Your task to perform on an android device: toggle improve location accuracy Image 0: 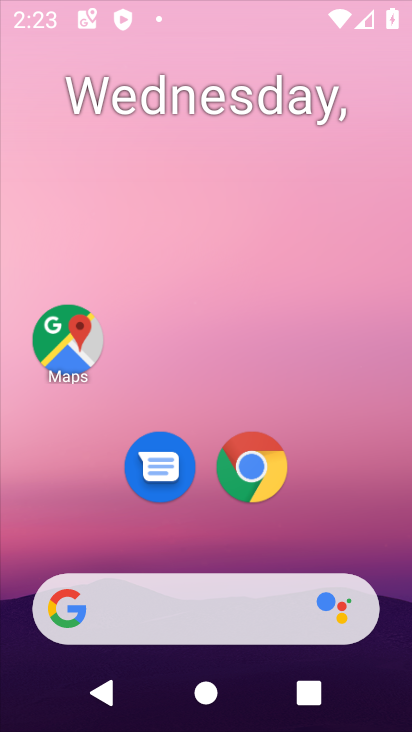
Step 0: drag from (246, 715) to (162, 148)
Your task to perform on an android device: toggle improve location accuracy Image 1: 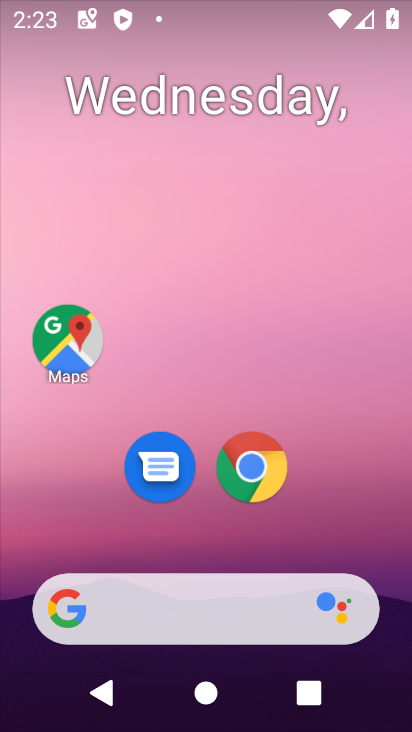
Step 1: drag from (285, 537) to (115, 136)
Your task to perform on an android device: toggle improve location accuracy Image 2: 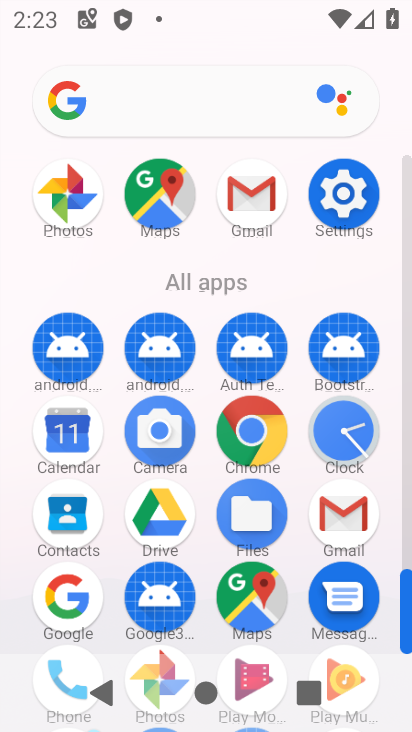
Step 2: click (335, 211)
Your task to perform on an android device: toggle improve location accuracy Image 3: 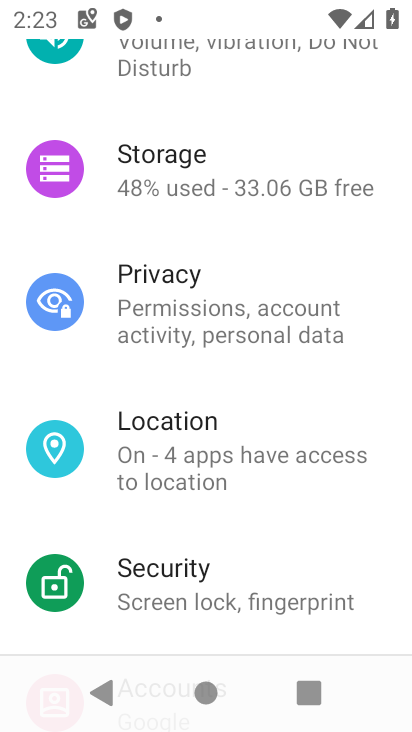
Step 3: click (179, 444)
Your task to perform on an android device: toggle improve location accuracy Image 4: 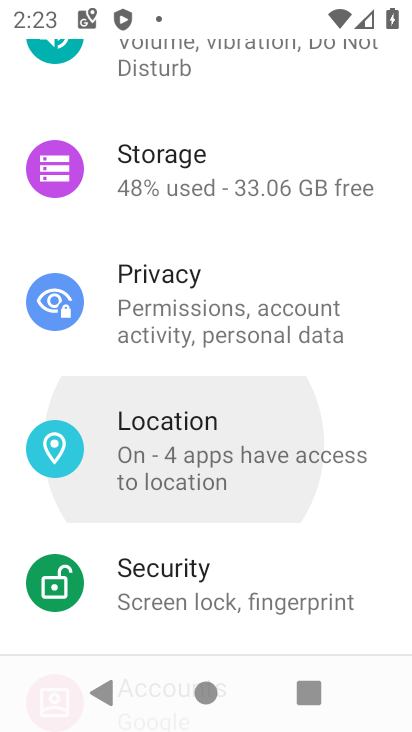
Step 4: click (179, 446)
Your task to perform on an android device: toggle improve location accuracy Image 5: 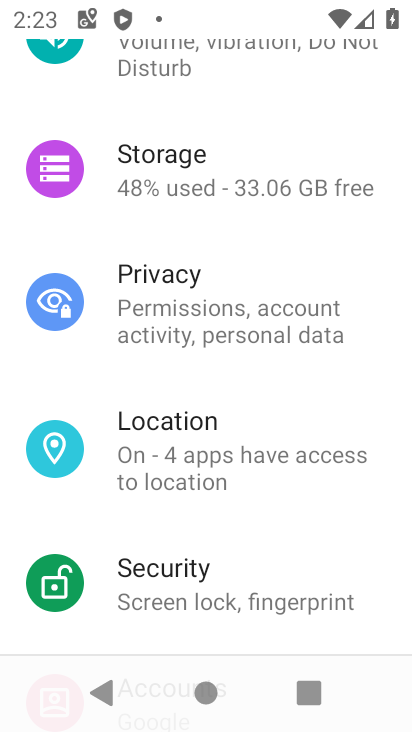
Step 5: click (179, 450)
Your task to perform on an android device: toggle improve location accuracy Image 6: 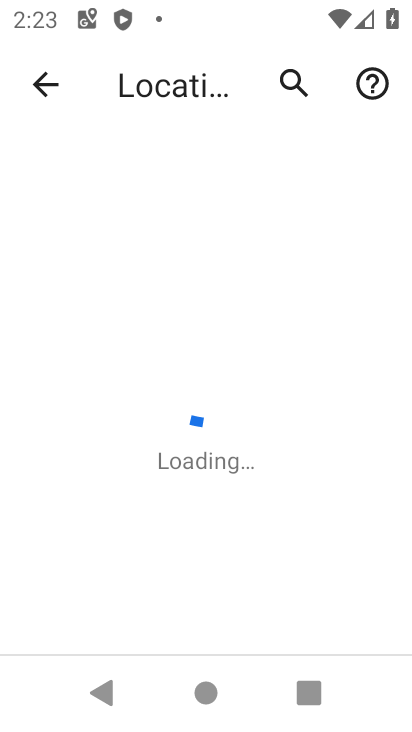
Step 6: drag from (227, 411) to (212, 245)
Your task to perform on an android device: toggle improve location accuracy Image 7: 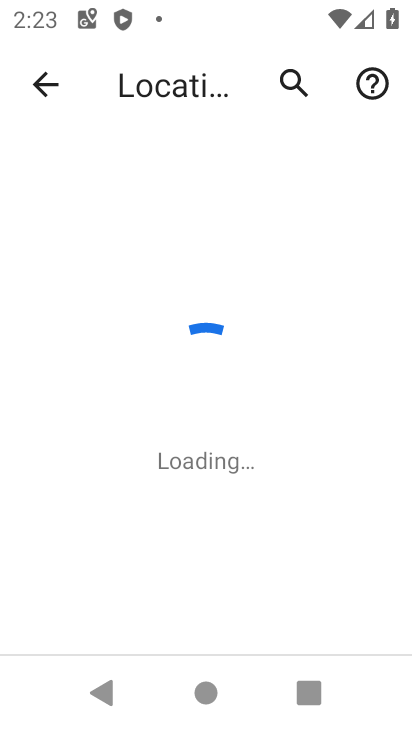
Step 7: click (45, 91)
Your task to perform on an android device: toggle improve location accuracy Image 8: 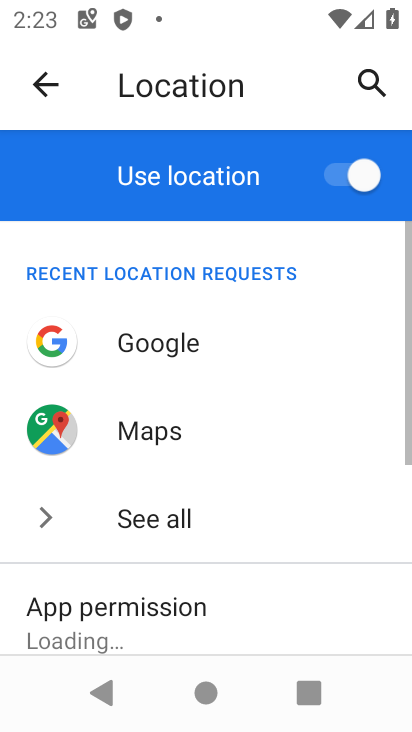
Step 8: drag from (205, 476) to (191, 199)
Your task to perform on an android device: toggle improve location accuracy Image 9: 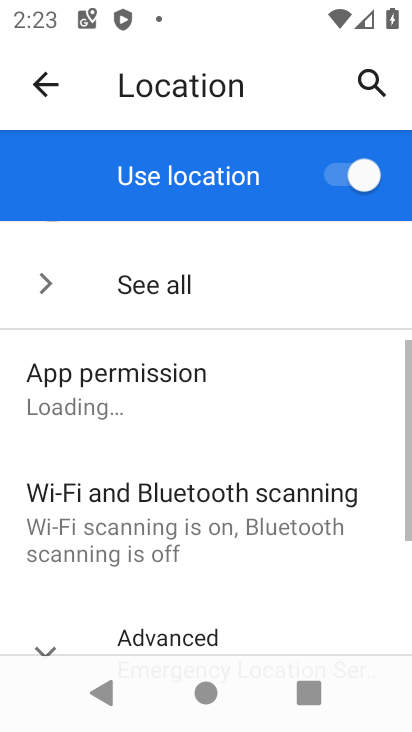
Step 9: drag from (252, 441) to (248, 187)
Your task to perform on an android device: toggle improve location accuracy Image 10: 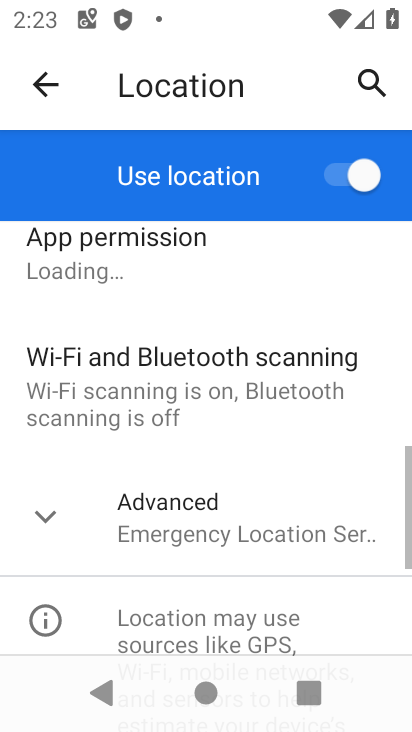
Step 10: drag from (240, 448) to (215, 200)
Your task to perform on an android device: toggle improve location accuracy Image 11: 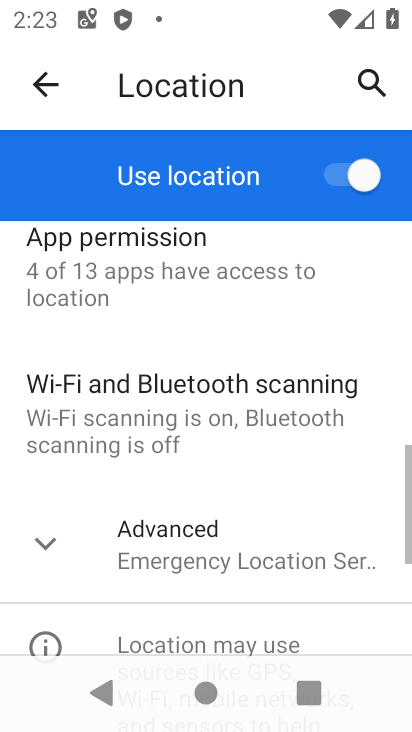
Step 11: click (194, 245)
Your task to perform on an android device: toggle improve location accuracy Image 12: 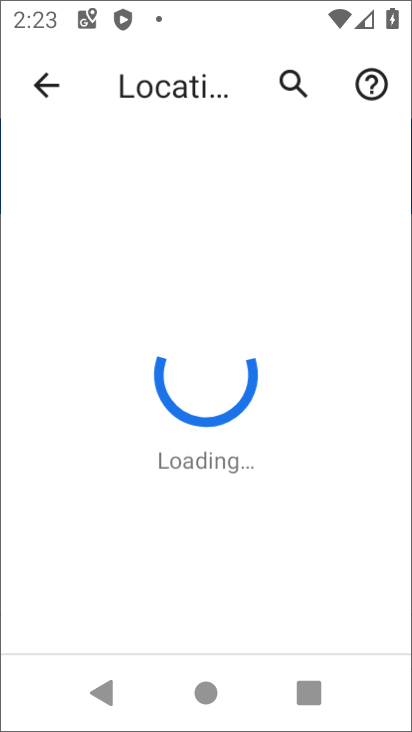
Step 12: click (182, 552)
Your task to perform on an android device: toggle improve location accuracy Image 13: 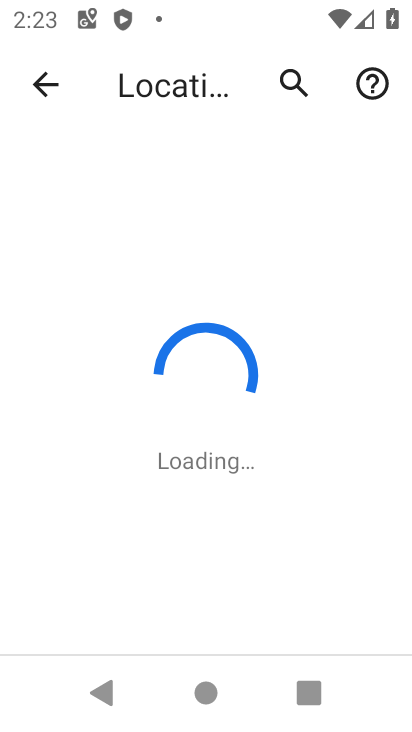
Step 13: click (182, 551)
Your task to perform on an android device: toggle improve location accuracy Image 14: 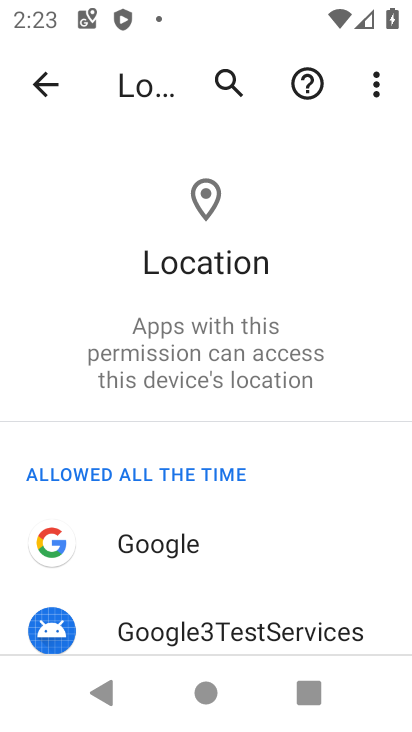
Step 14: drag from (191, 519) to (191, 269)
Your task to perform on an android device: toggle improve location accuracy Image 15: 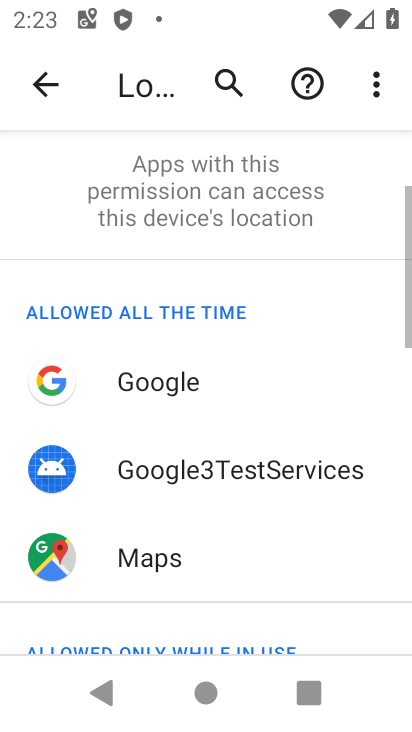
Step 15: drag from (235, 448) to (195, 190)
Your task to perform on an android device: toggle improve location accuracy Image 16: 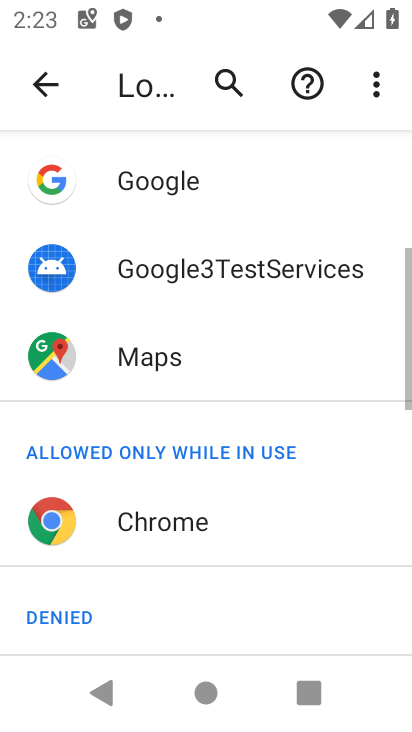
Step 16: drag from (224, 493) to (211, 285)
Your task to perform on an android device: toggle improve location accuracy Image 17: 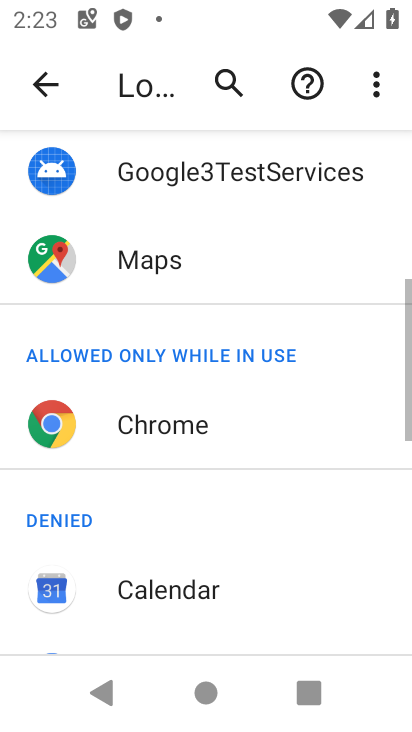
Step 17: click (155, 192)
Your task to perform on an android device: toggle improve location accuracy Image 18: 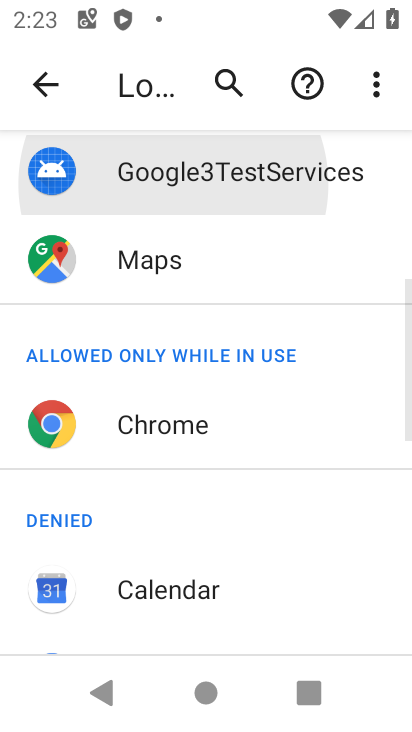
Step 18: drag from (188, 476) to (188, 274)
Your task to perform on an android device: toggle improve location accuracy Image 19: 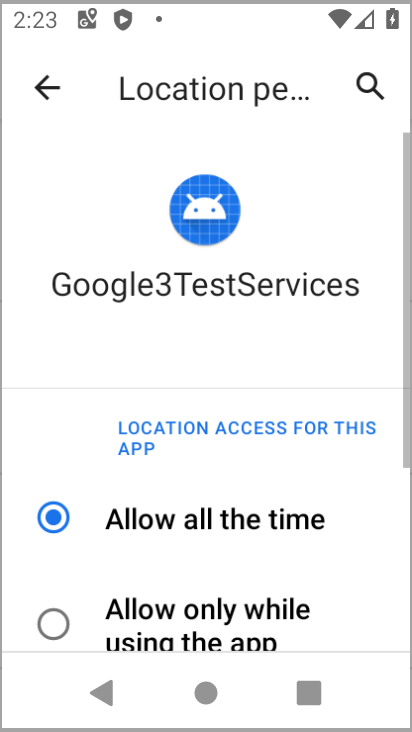
Step 19: drag from (197, 420) to (187, 277)
Your task to perform on an android device: toggle improve location accuracy Image 20: 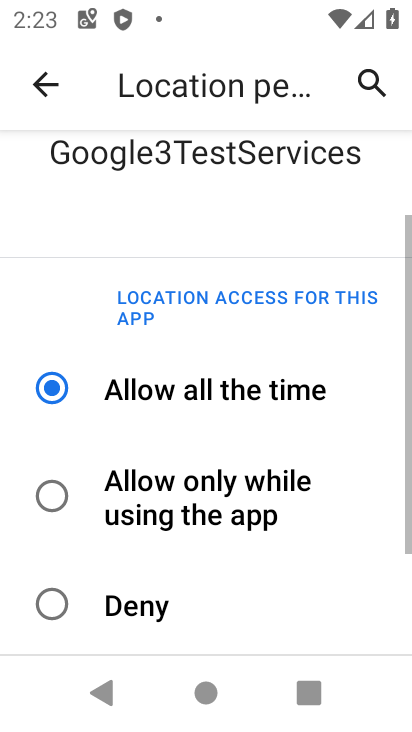
Step 20: drag from (148, 353) to (124, 228)
Your task to perform on an android device: toggle improve location accuracy Image 21: 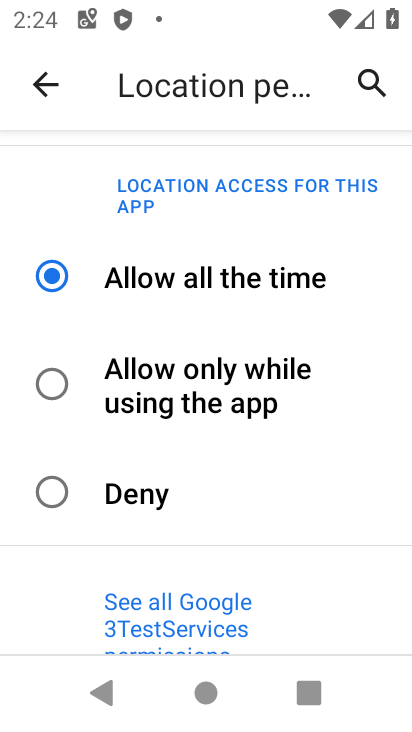
Step 21: click (33, 85)
Your task to perform on an android device: toggle improve location accuracy Image 22: 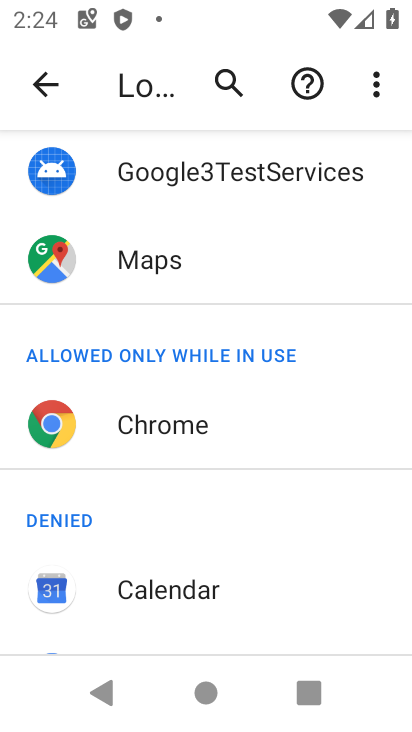
Step 22: click (39, 85)
Your task to perform on an android device: toggle improve location accuracy Image 23: 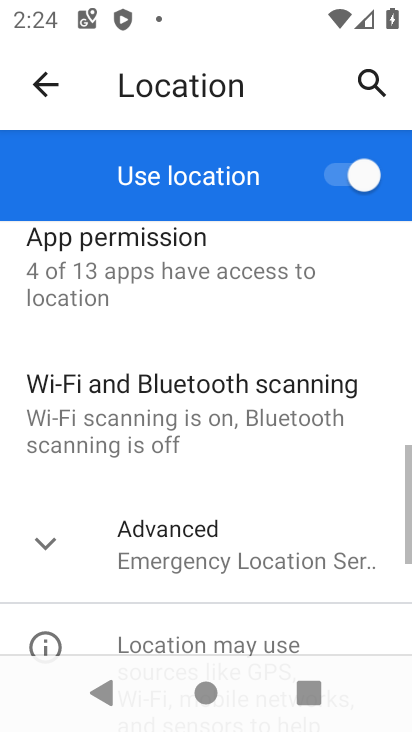
Step 23: click (182, 268)
Your task to perform on an android device: toggle improve location accuracy Image 24: 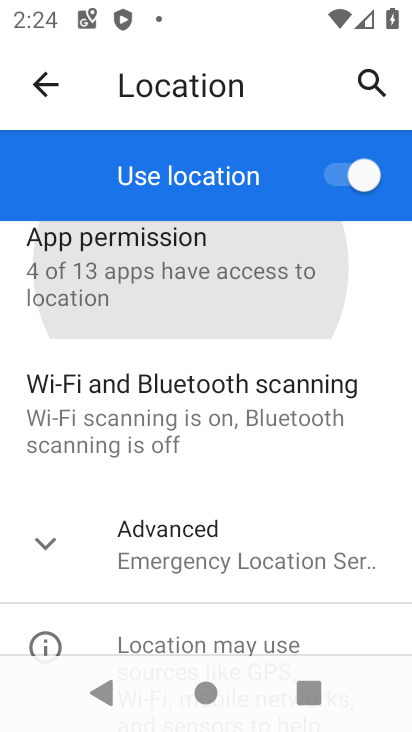
Step 24: drag from (260, 406) to (253, 227)
Your task to perform on an android device: toggle improve location accuracy Image 25: 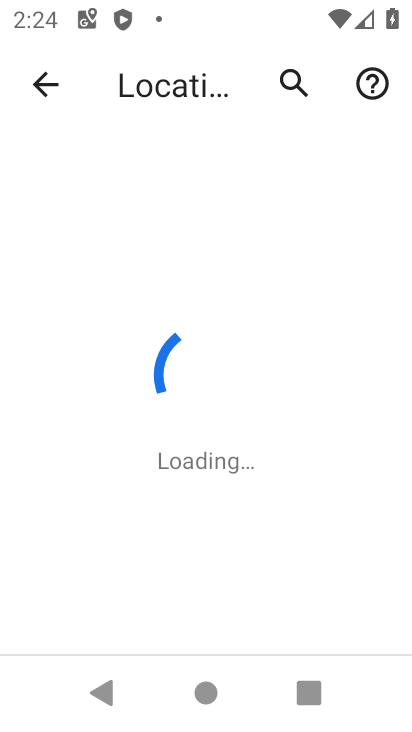
Step 25: click (35, 84)
Your task to perform on an android device: toggle improve location accuracy Image 26: 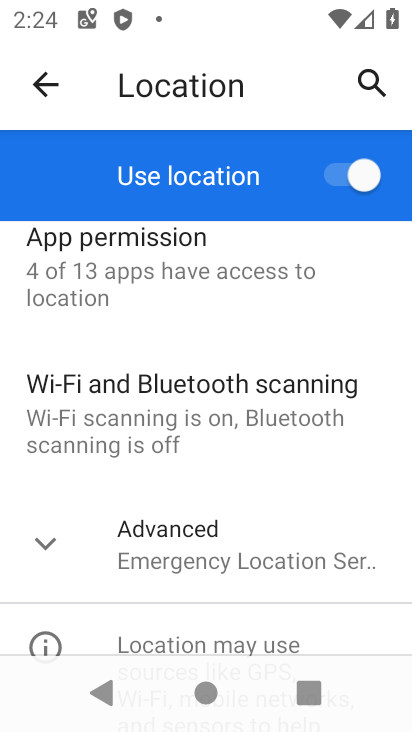
Step 26: click (152, 545)
Your task to perform on an android device: toggle improve location accuracy Image 27: 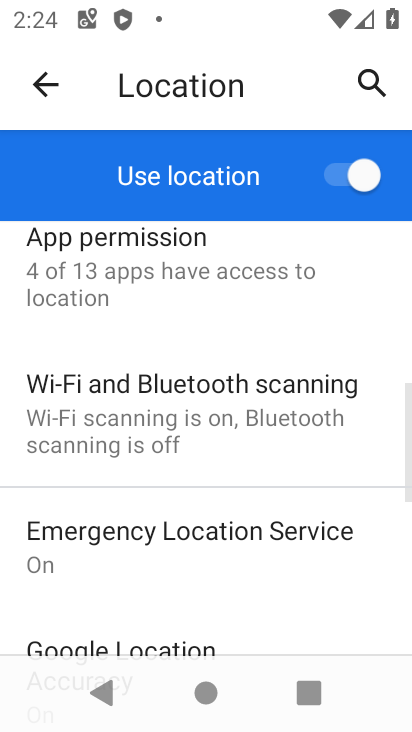
Step 27: drag from (169, 558) to (132, 248)
Your task to perform on an android device: toggle improve location accuracy Image 28: 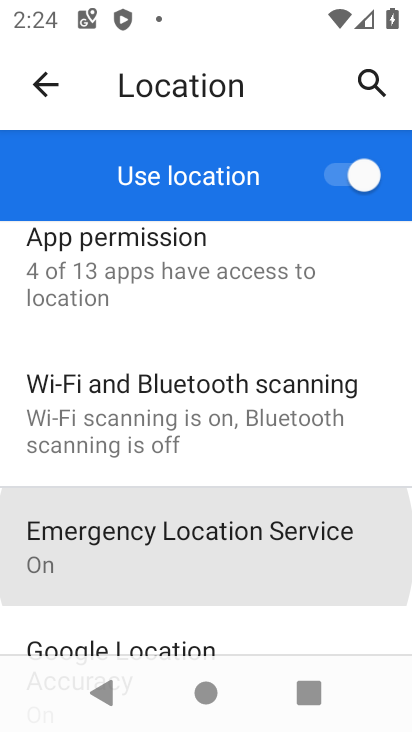
Step 28: drag from (200, 507) to (152, 254)
Your task to perform on an android device: toggle improve location accuracy Image 29: 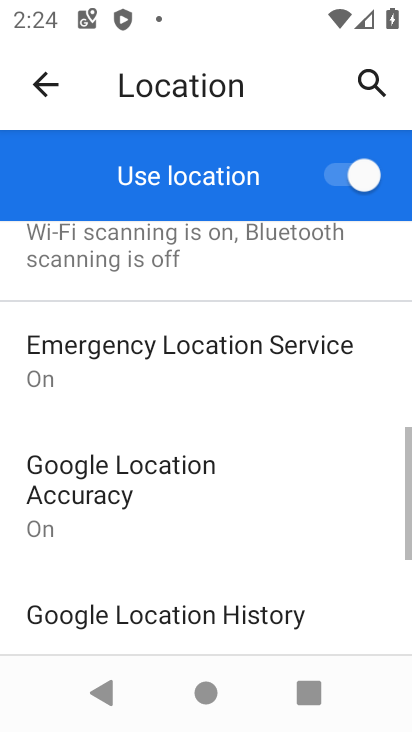
Step 29: drag from (165, 442) to (149, 228)
Your task to perform on an android device: toggle improve location accuracy Image 30: 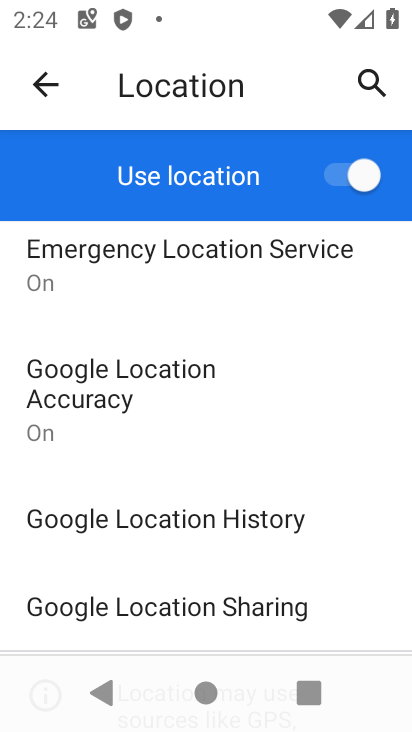
Step 30: click (78, 369)
Your task to perform on an android device: toggle improve location accuracy Image 31: 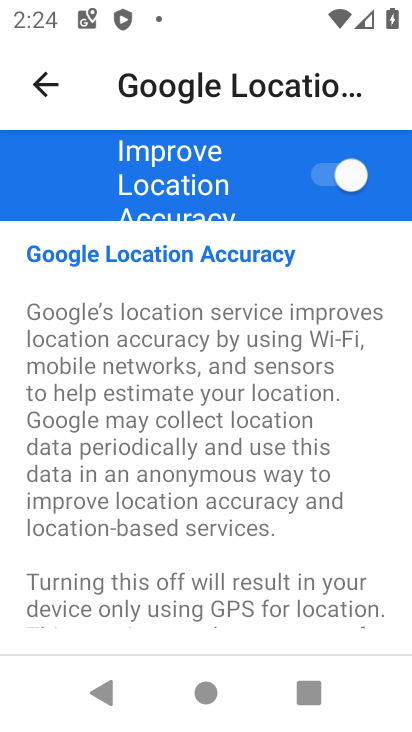
Step 31: click (349, 175)
Your task to perform on an android device: toggle improve location accuracy Image 32: 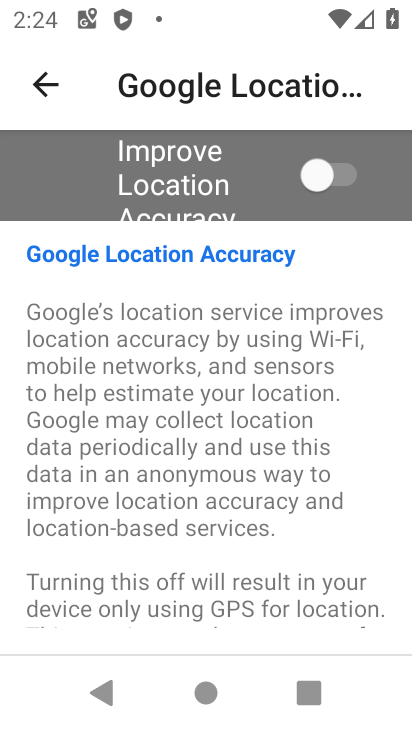
Step 32: task complete